Your task to perform on an android device: Open settings Image 0: 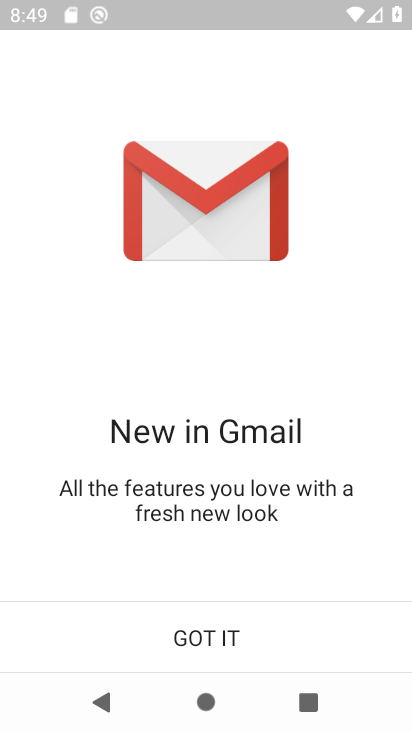
Step 0: press home button
Your task to perform on an android device: Open settings Image 1: 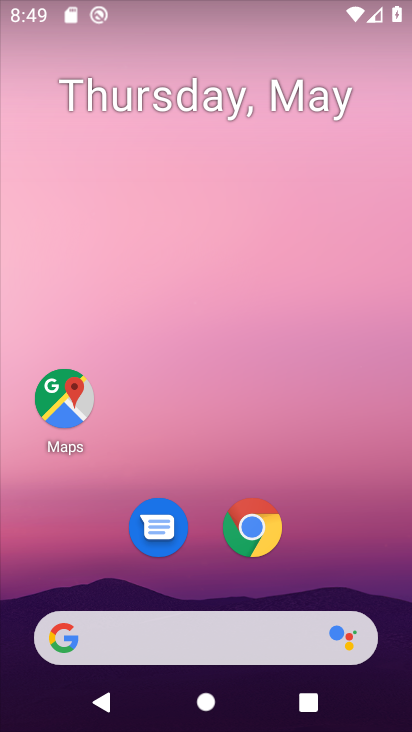
Step 1: drag from (252, 371) to (284, 62)
Your task to perform on an android device: Open settings Image 2: 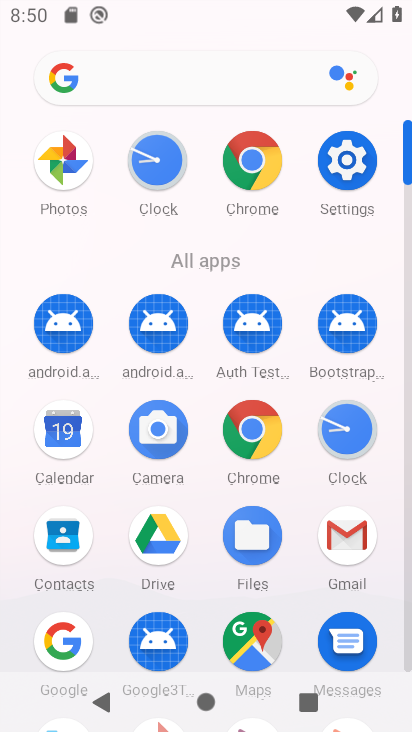
Step 2: click (338, 187)
Your task to perform on an android device: Open settings Image 3: 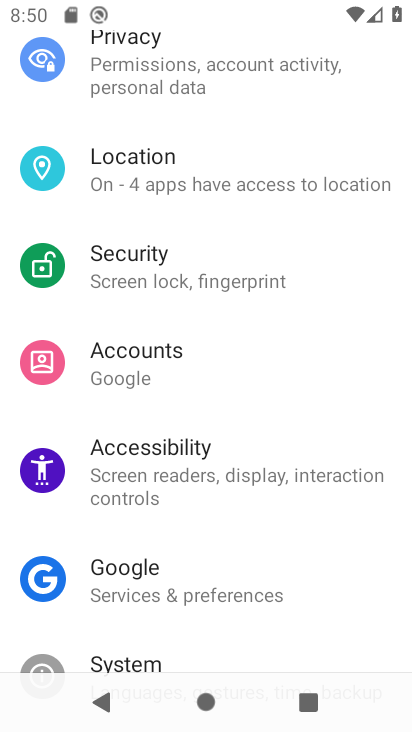
Step 3: task complete